Your task to perform on an android device: Go to Android settings Image 0: 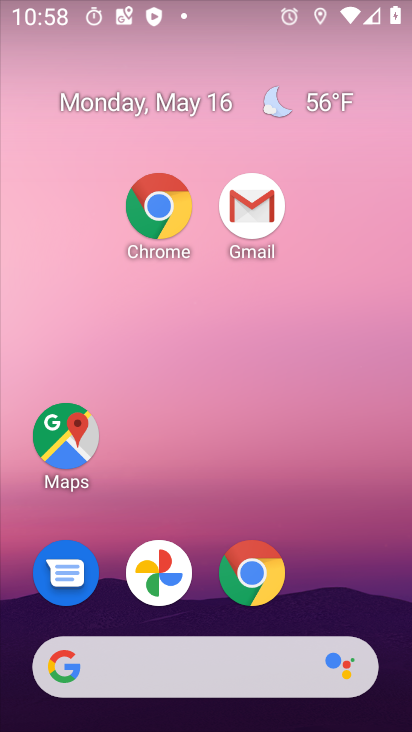
Step 0: drag from (368, 630) to (213, 142)
Your task to perform on an android device: Go to Android settings Image 1: 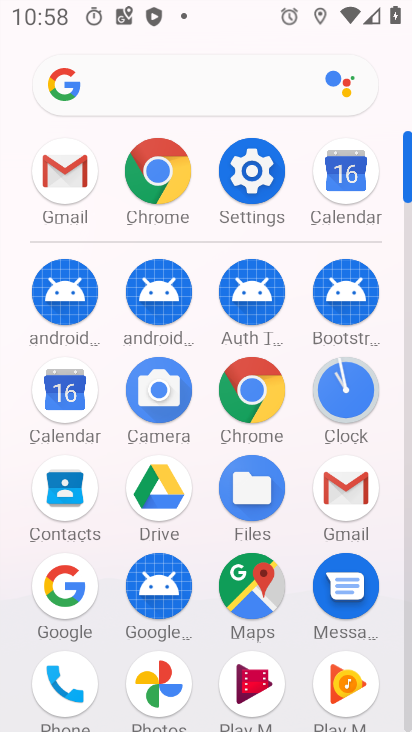
Step 1: click (169, 199)
Your task to perform on an android device: Go to Android settings Image 2: 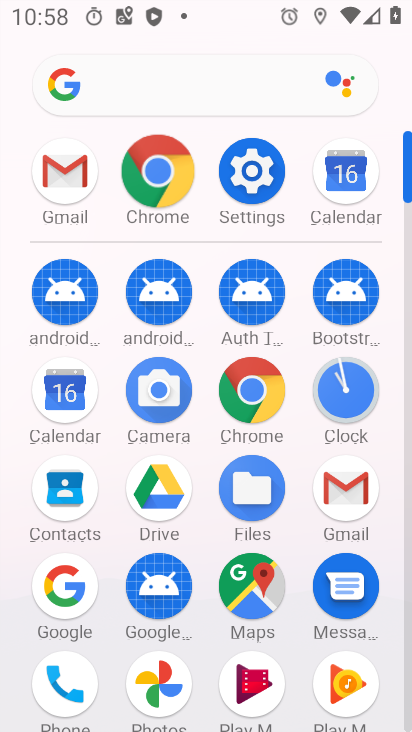
Step 2: click (169, 199)
Your task to perform on an android device: Go to Android settings Image 3: 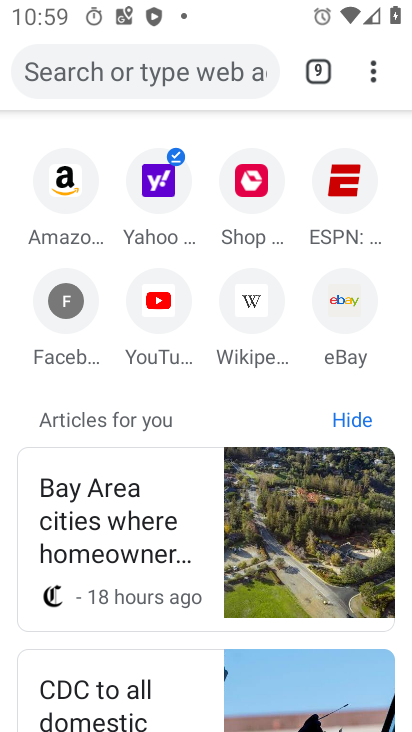
Step 3: press home button
Your task to perform on an android device: Go to Android settings Image 4: 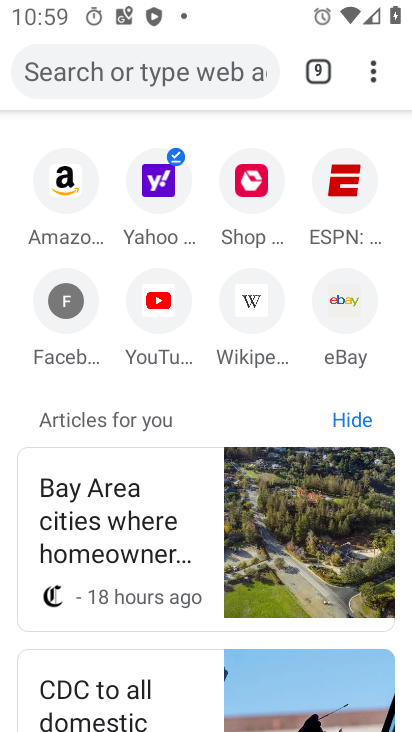
Step 4: press home button
Your task to perform on an android device: Go to Android settings Image 5: 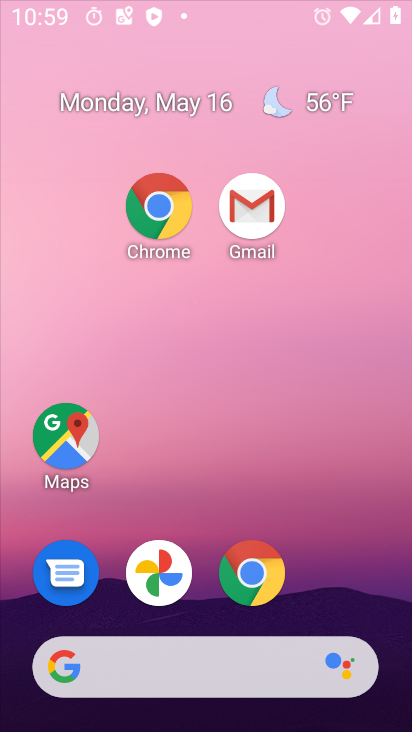
Step 5: press home button
Your task to perform on an android device: Go to Android settings Image 6: 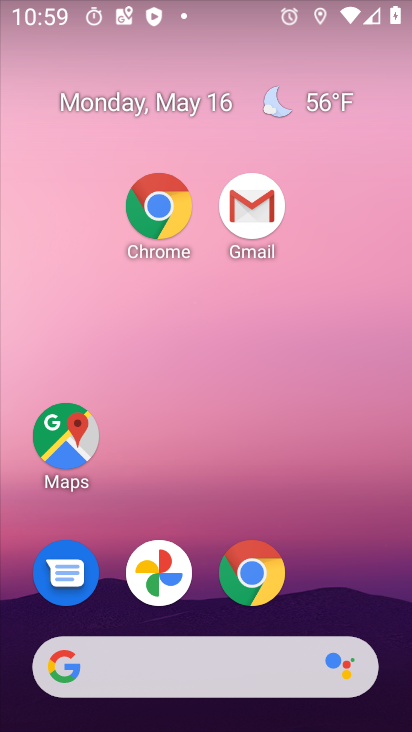
Step 6: press home button
Your task to perform on an android device: Go to Android settings Image 7: 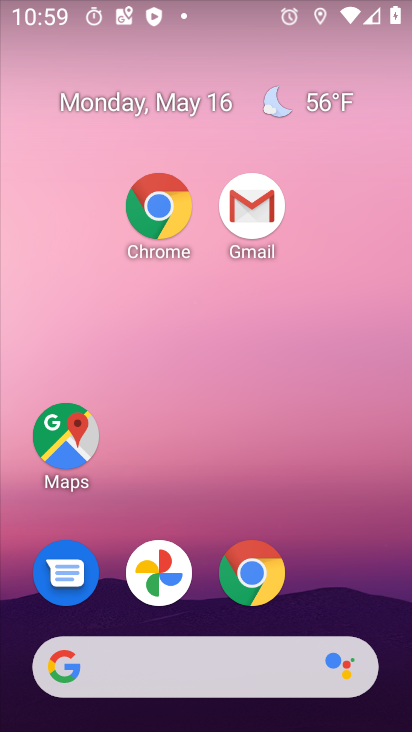
Step 7: drag from (280, 605) to (283, 35)
Your task to perform on an android device: Go to Android settings Image 8: 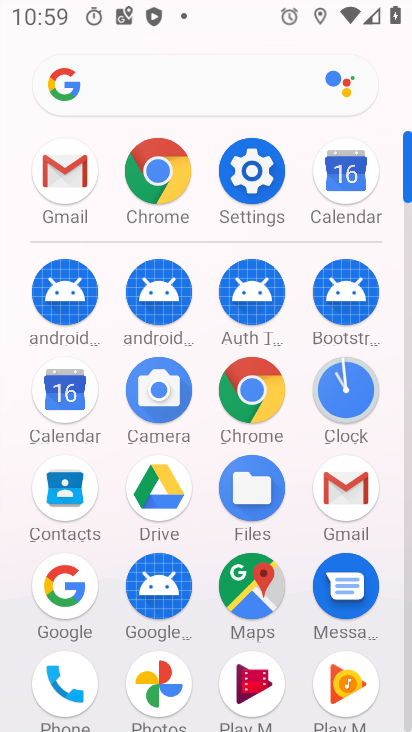
Step 8: click (249, 184)
Your task to perform on an android device: Go to Android settings Image 9: 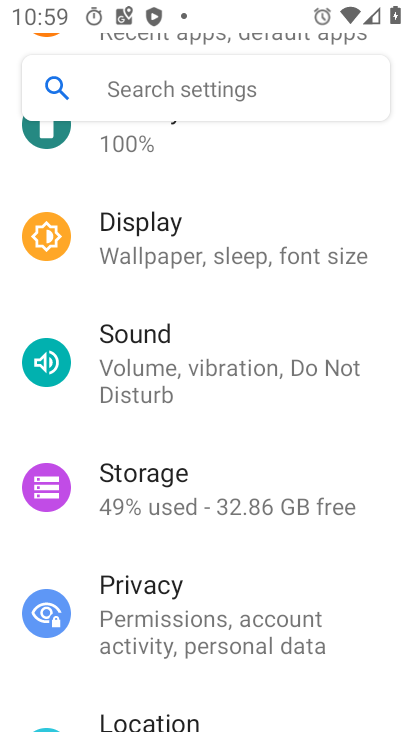
Step 9: drag from (188, 568) to (203, 180)
Your task to perform on an android device: Go to Android settings Image 10: 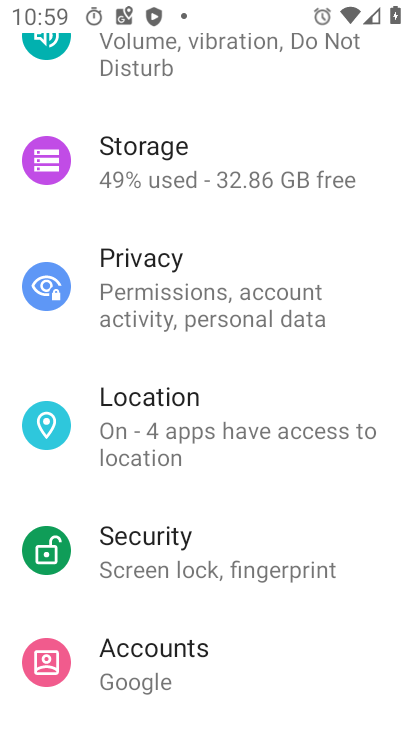
Step 10: drag from (247, 462) to (281, 181)
Your task to perform on an android device: Go to Android settings Image 11: 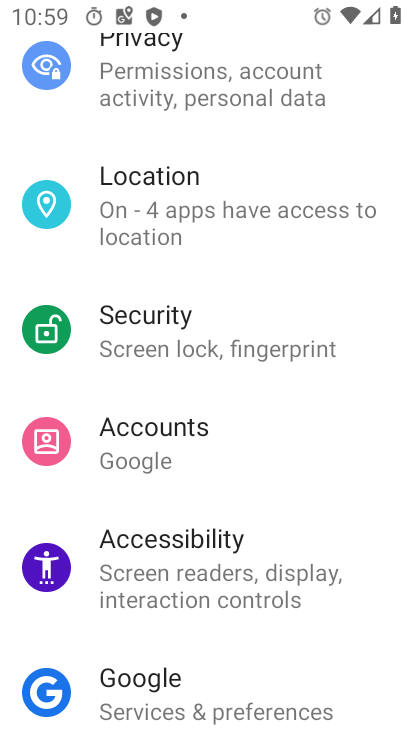
Step 11: drag from (236, 481) to (308, 135)
Your task to perform on an android device: Go to Android settings Image 12: 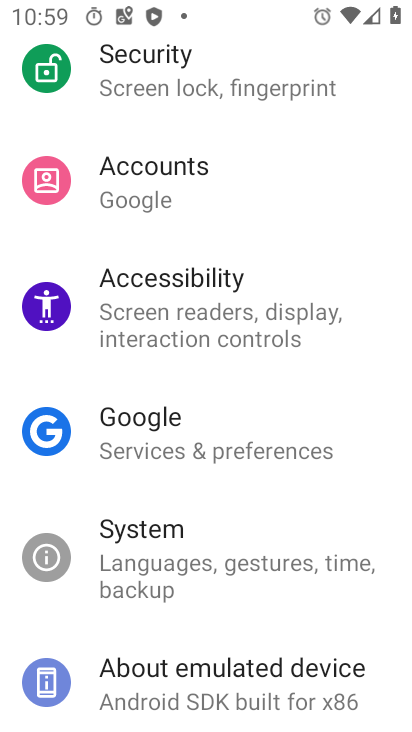
Step 12: click (185, 693)
Your task to perform on an android device: Go to Android settings Image 13: 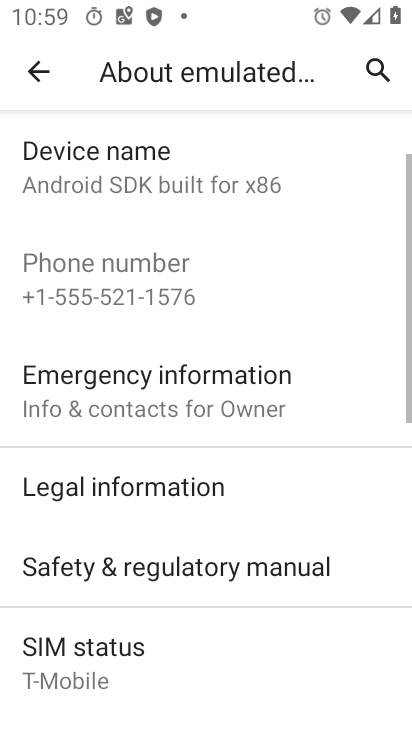
Step 13: task complete